Your task to perform on an android device: Open the Play Movies app and select the watchlist tab. Image 0: 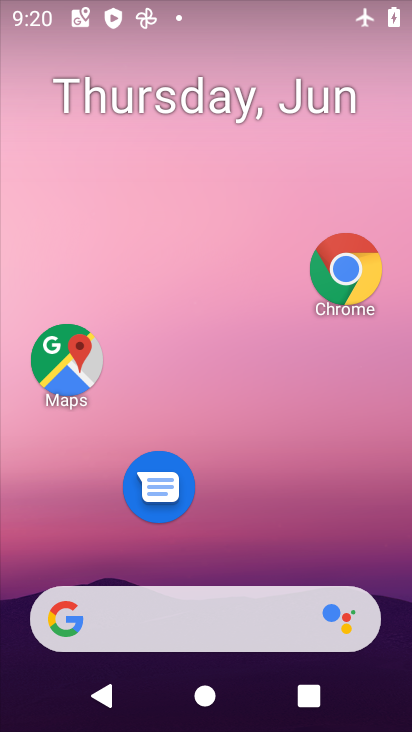
Step 0: click (58, 10)
Your task to perform on an android device: Open the Play Movies app and select the watchlist tab. Image 1: 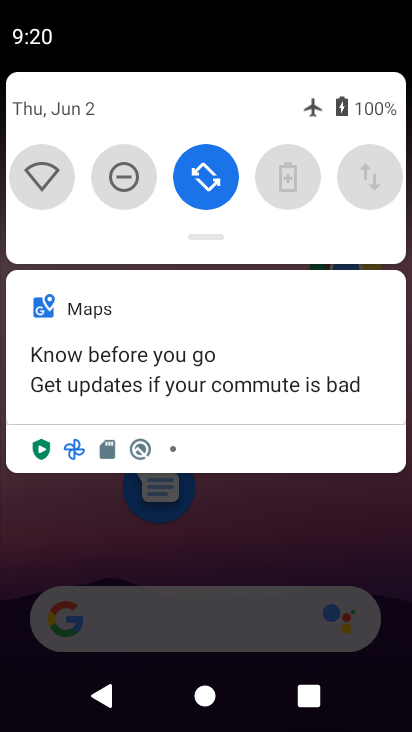
Step 1: drag from (215, 518) to (162, 16)
Your task to perform on an android device: Open the Play Movies app and select the watchlist tab. Image 2: 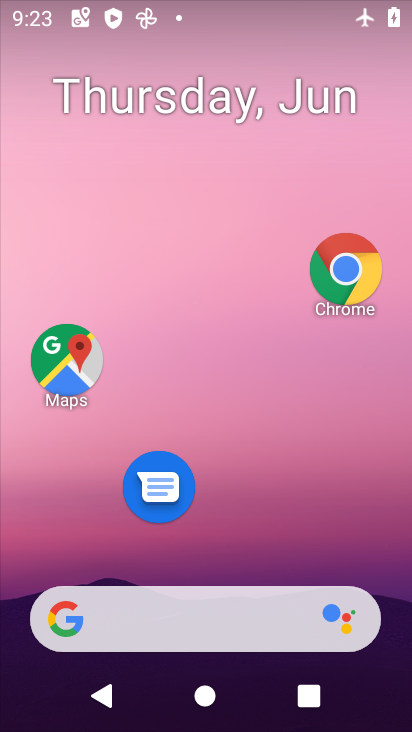
Step 2: drag from (219, 520) to (20, 0)
Your task to perform on an android device: Open the Play Movies app and select the watchlist tab. Image 3: 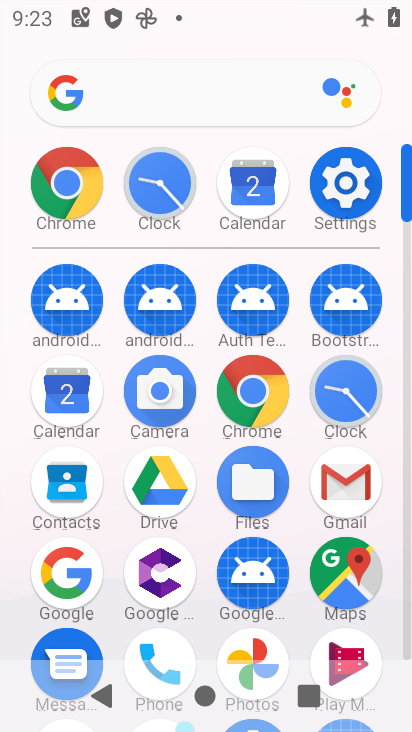
Step 3: drag from (201, 630) to (164, 243)
Your task to perform on an android device: Open the Play Movies app and select the watchlist tab. Image 4: 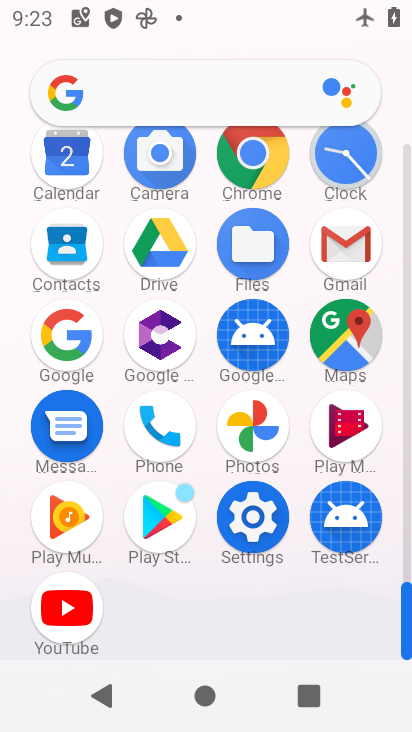
Step 4: click (335, 424)
Your task to perform on an android device: Open the Play Movies app and select the watchlist tab. Image 5: 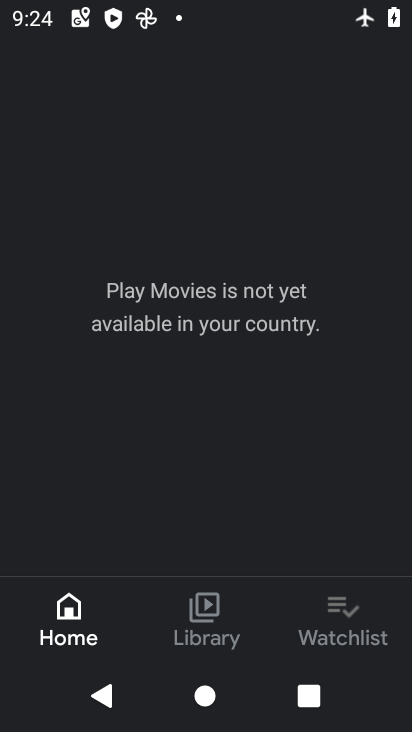
Step 5: click (308, 643)
Your task to perform on an android device: Open the Play Movies app and select the watchlist tab. Image 6: 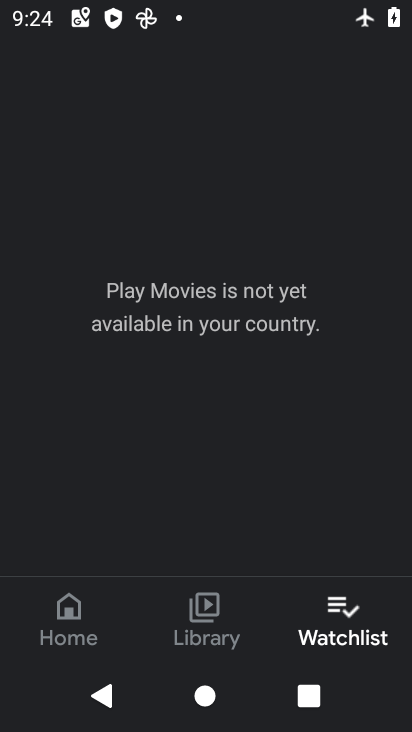
Step 6: task complete